Your task to perform on an android device: Open Reddit.com Image 0: 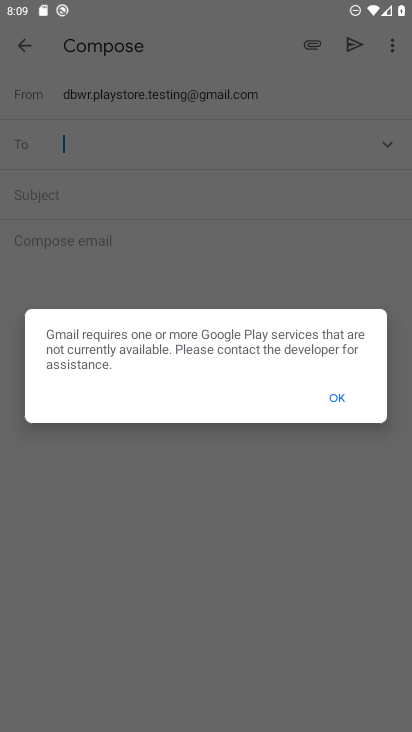
Step 0: press home button
Your task to perform on an android device: Open Reddit.com Image 1: 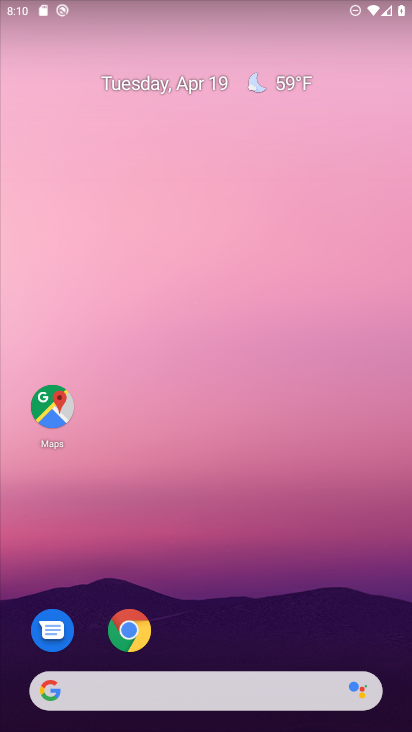
Step 1: click (116, 633)
Your task to perform on an android device: Open Reddit.com Image 2: 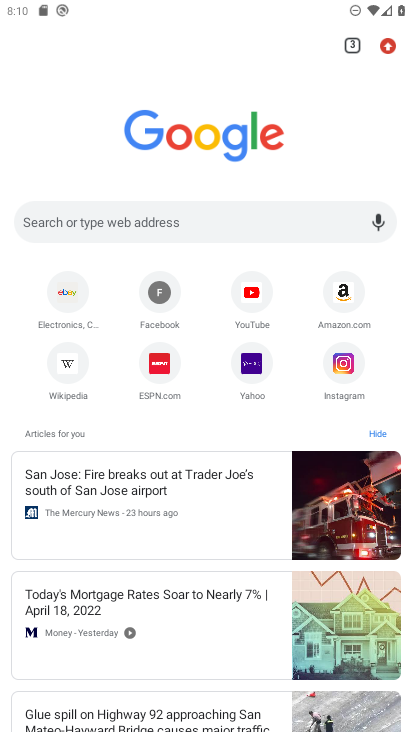
Step 2: click (204, 227)
Your task to perform on an android device: Open Reddit.com Image 3: 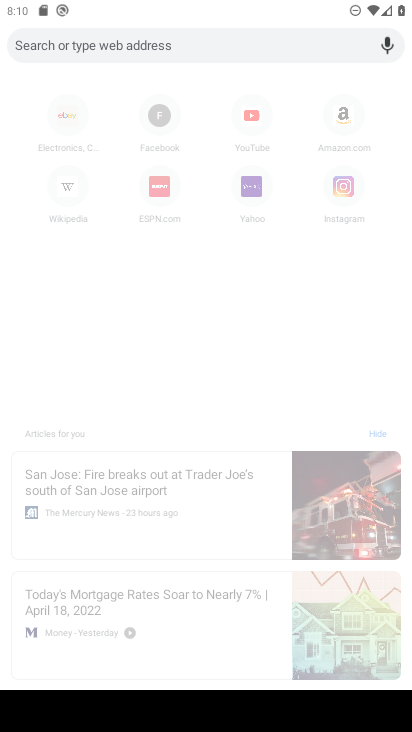
Step 3: type "Reddit.com"
Your task to perform on an android device: Open Reddit.com Image 4: 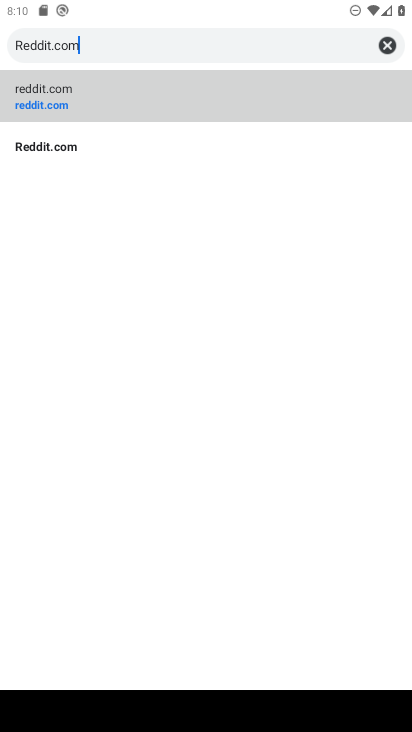
Step 4: click (60, 143)
Your task to perform on an android device: Open Reddit.com Image 5: 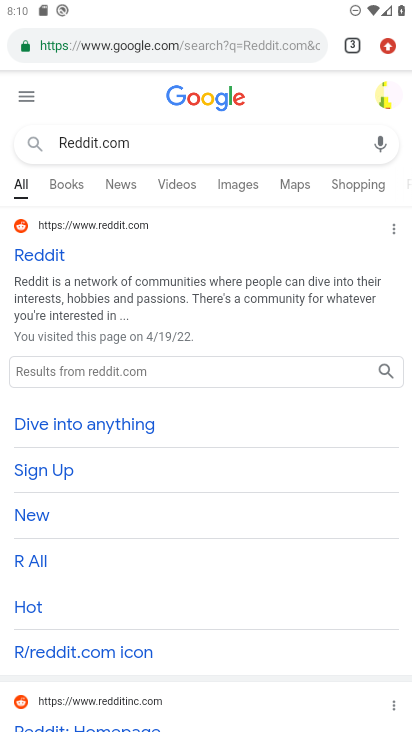
Step 5: click (41, 257)
Your task to perform on an android device: Open Reddit.com Image 6: 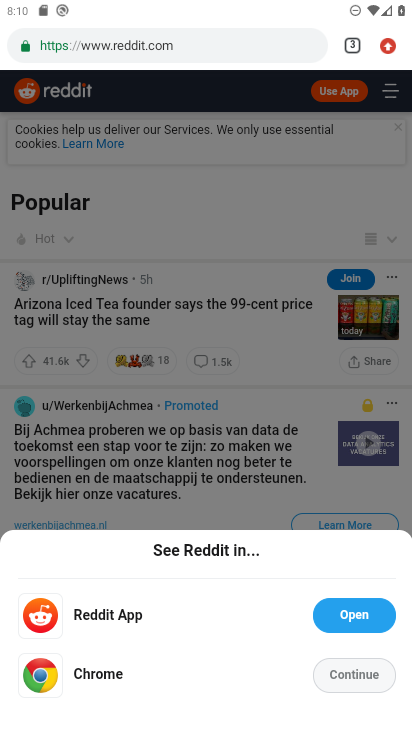
Step 6: click (351, 678)
Your task to perform on an android device: Open Reddit.com Image 7: 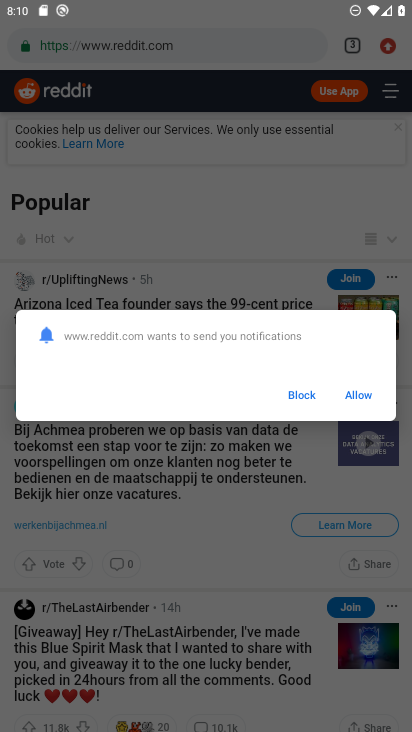
Step 7: click (361, 393)
Your task to perform on an android device: Open Reddit.com Image 8: 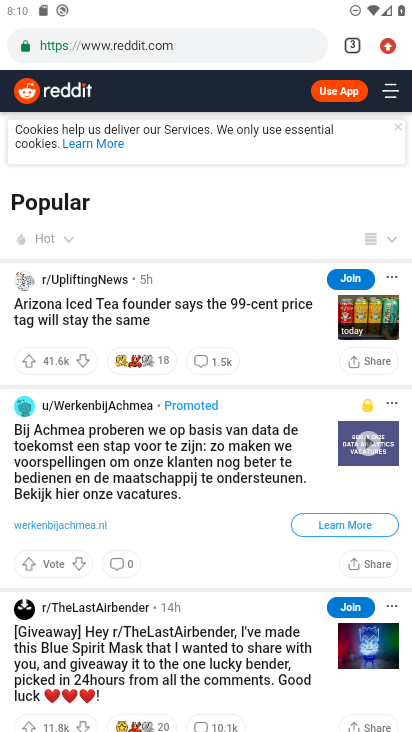
Step 8: task complete